Your task to perform on an android device: toggle notification dots Image 0: 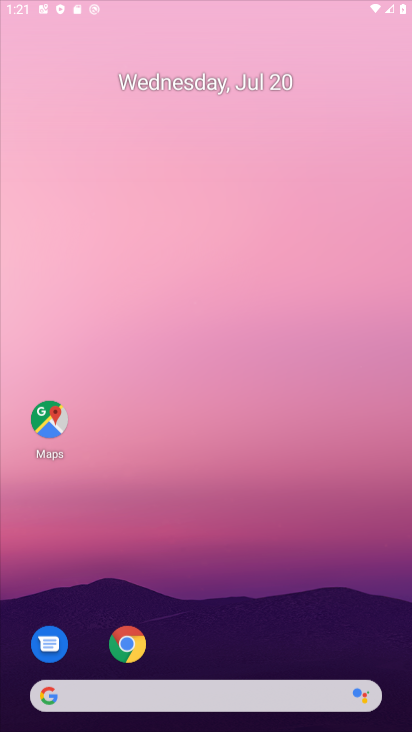
Step 0: press home button
Your task to perform on an android device: toggle notification dots Image 1: 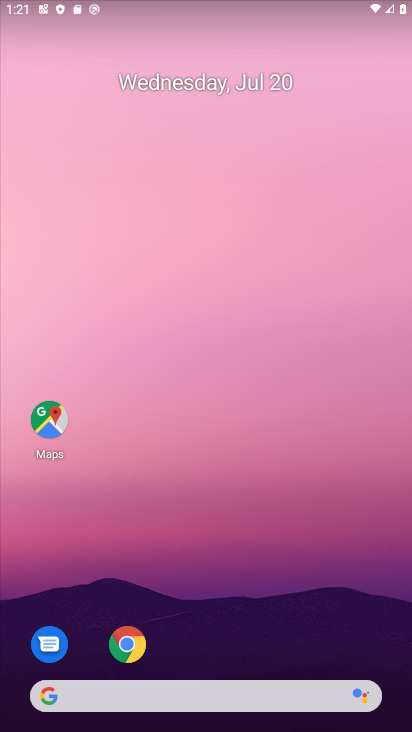
Step 1: drag from (242, 627) to (225, 2)
Your task to perform on an android device: toggle notification dots Image 2: 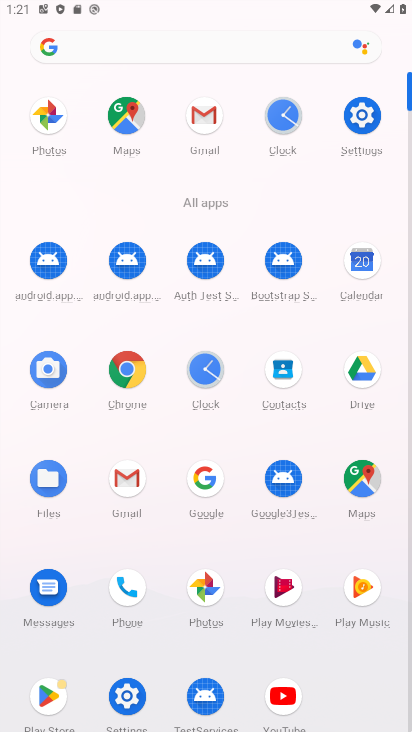
Step 2: click (352, 112)
Your task to perform on an android device: toggle notification dots Image 3: 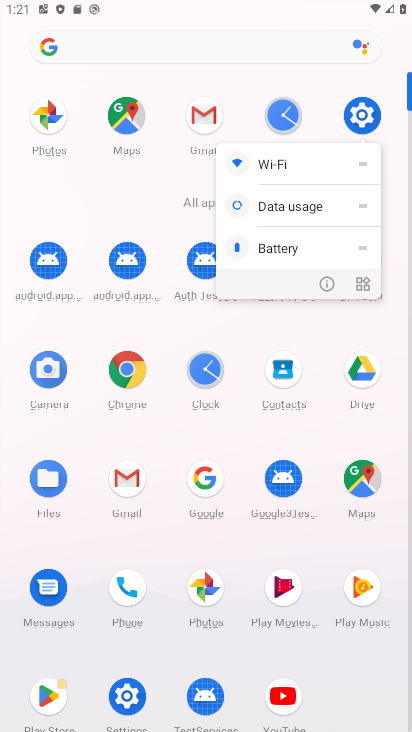
Step 3: click (368, 114)
Your task to perform on an android device: toggle notification dots Image 4: 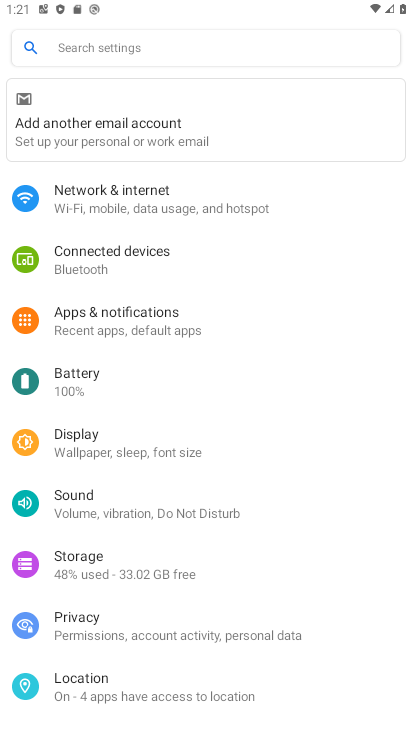
Step 4: click (90, 307)
Your task to perform on an android device: toggle notification dots Image 5: 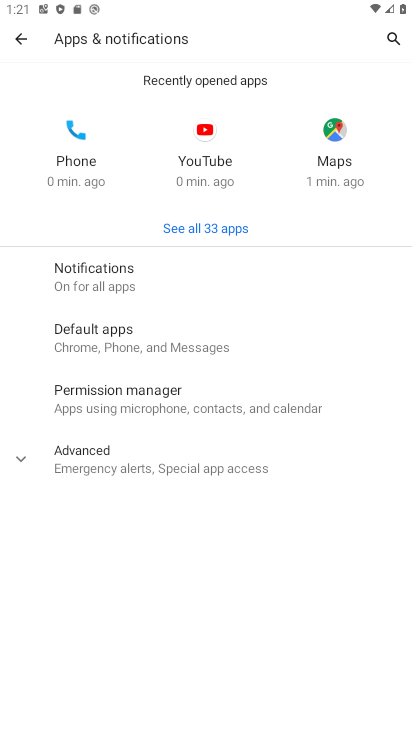
Step 5: click (91, 281)
Your task to perform on an android device: toggle notification dots Image 6: 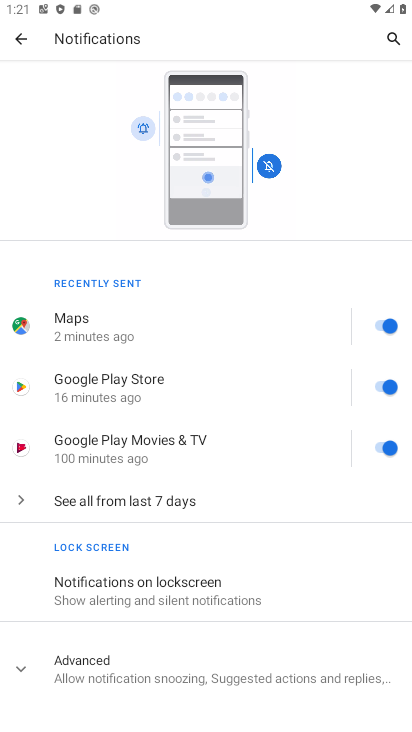
Step 6: click (20, 672)
Your task to perform on an android device: toggle notification dots Image 7: 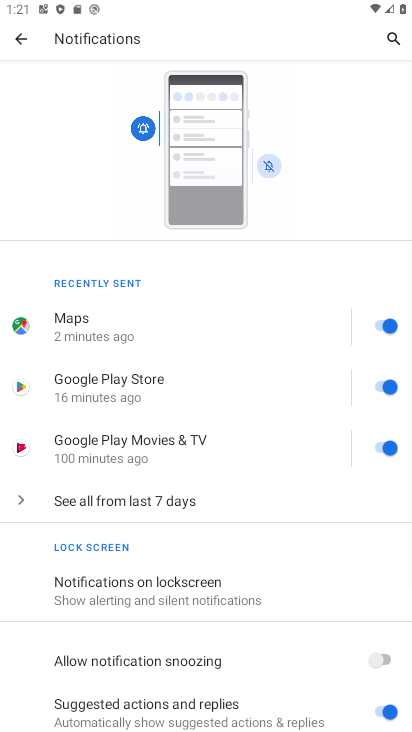
Step 7: drag from (240, 630) to (284, 209)
Your task to perform on an android device: toggle notification dots Image 8: 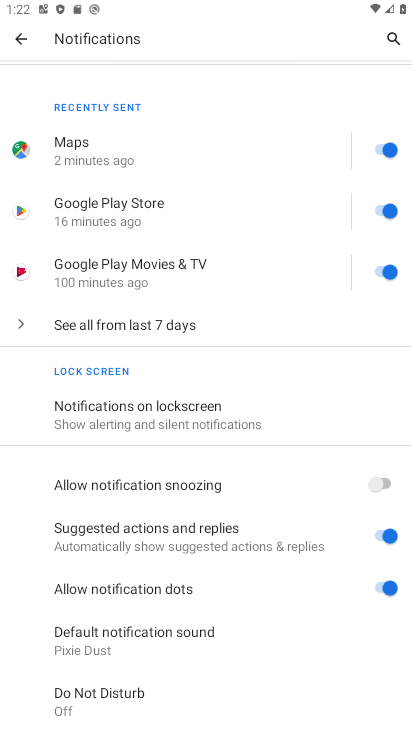
Step 8: click (391, 580)
Your task to perform on an android device: toggle notification dots Image 9: 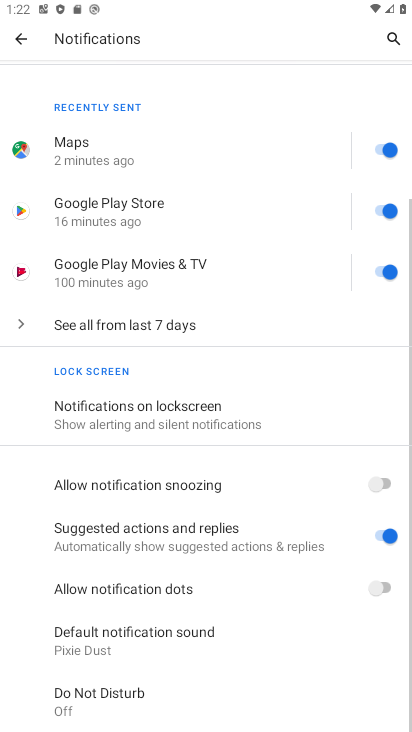
Step 9: task complete